Your task to perform on an android device: turn on showing notifications on the lock screen Image 0: 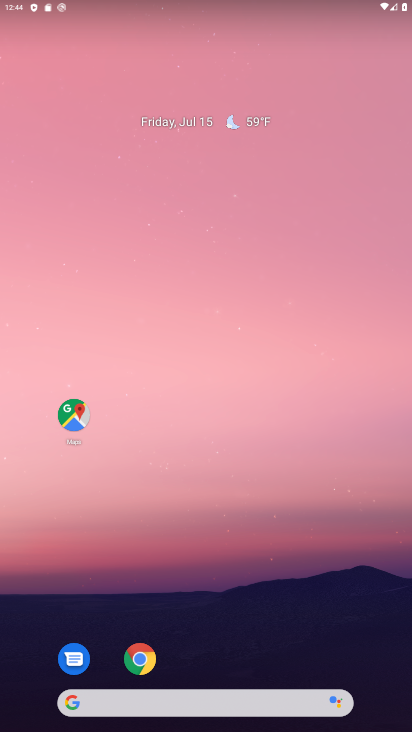
Step 0: drag from (233, 665) to (294, 152)
Your task to perform on an android device: turn on showing notifications on the lock screen Image 1: 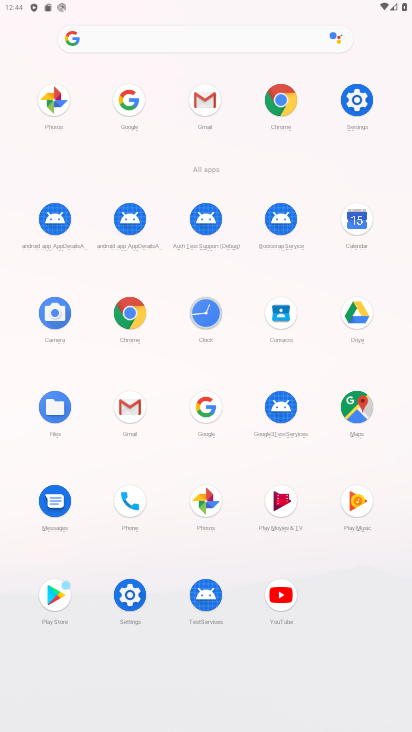
Step 1: click (359, 106)
Your task to perform on an android device: turn on showing notifications on the lock screen Image 2: 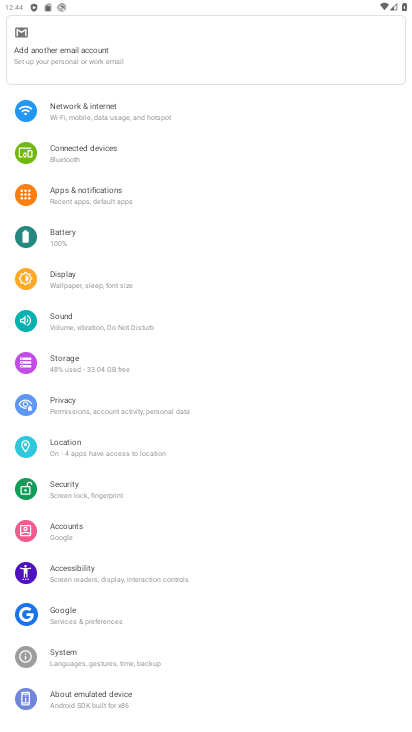
Step 2: click (103, 195)
Your task to perform on an android device: turn on showing notifications on the lock screen Image 3: 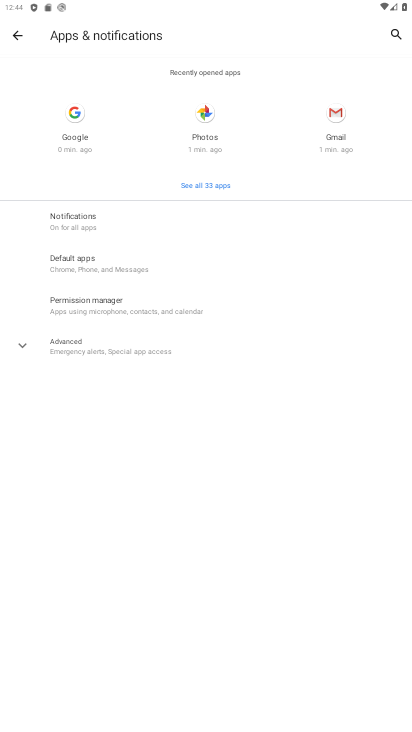
Step 3: click (110, 225)
Your task to perform on an android device: turn on showing notifications on the lock screen Image 4: 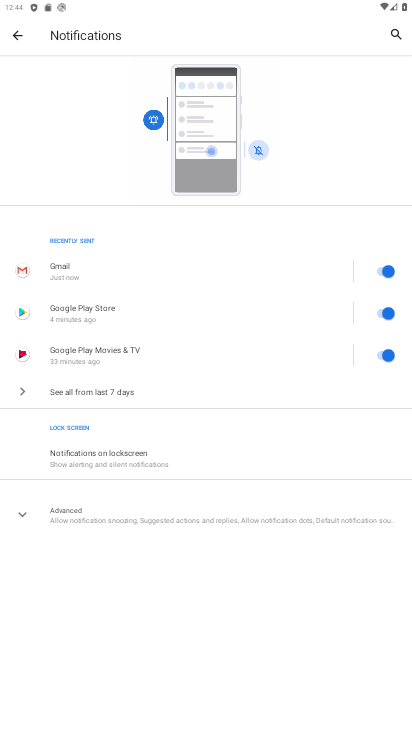
Step 4: click (117, 463)
Your task to perform on an android device: turn on showing notifications on the lock screen Image 5: 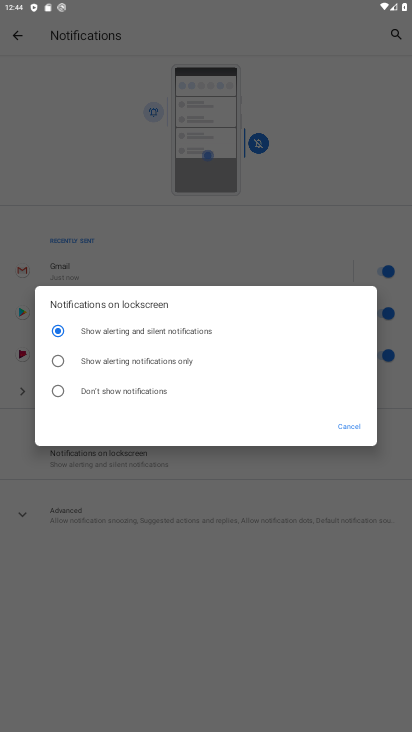
Step 5: task complete